Your task to perform on an android device: clear all cookies in the chrome app Image 0: 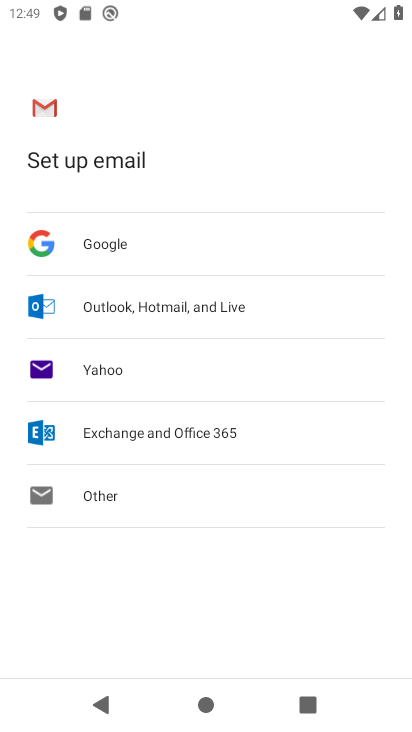
Step 0: press back button
Your task to perform on an android device: clear all cookies in the chrome app Image 1: 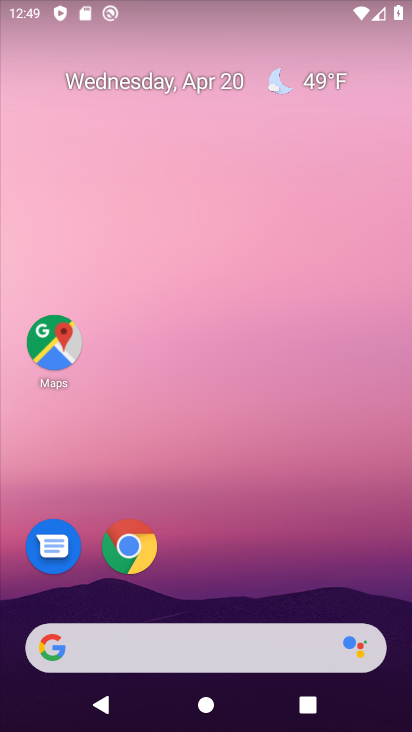
Step 1: click (141, 551)
Your task to perform on an android device: clear all cookies in the chrome app Image 2: 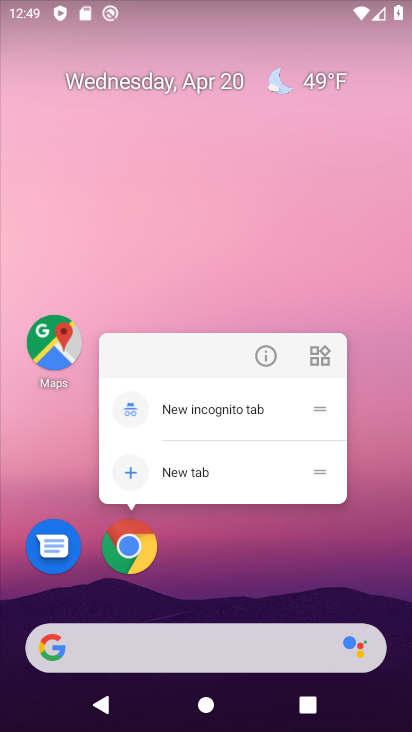
Step 2: click (127, 546)
Your task to perform on an android device: clear all cookies in the chrome app Image 3: 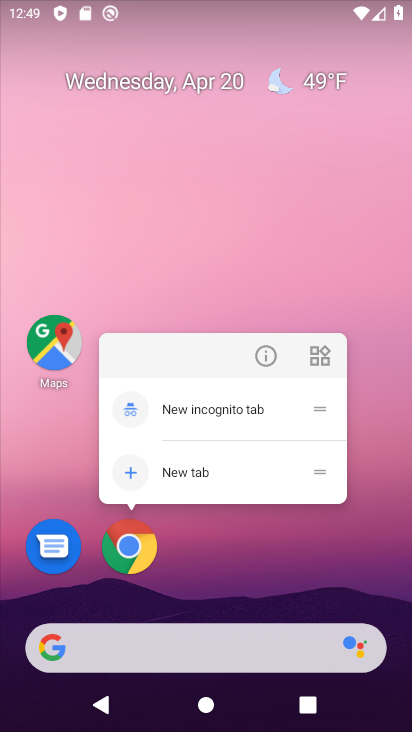
Step 3: click (118, 550)
Your task to perform on an android device: clear all cookies in the chrome app Image 4: 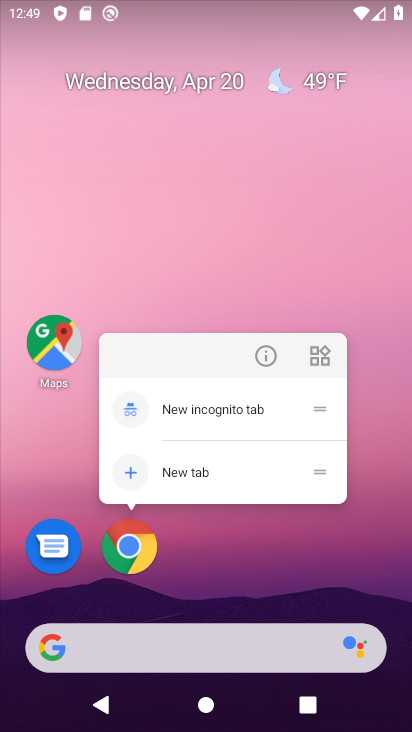
Step 4: click (126, 547)
Your task to perform on an android device: clear all cookies in the chrome app Image 5: 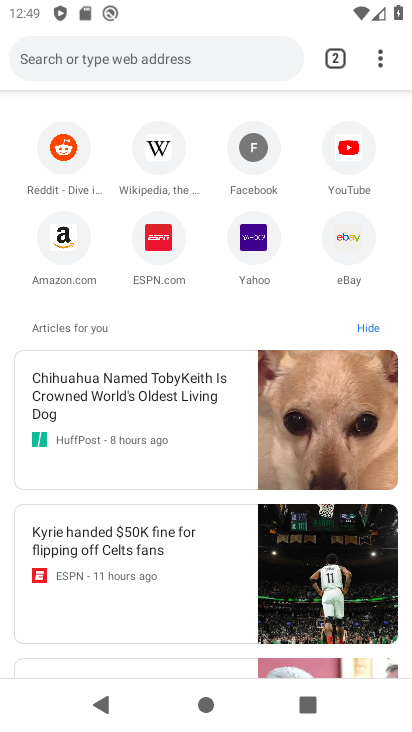
Step 5: drag from (381, 55) to (160, 383)
Your task to perform on an android device: clear all cookies in the chrome app Image 6: 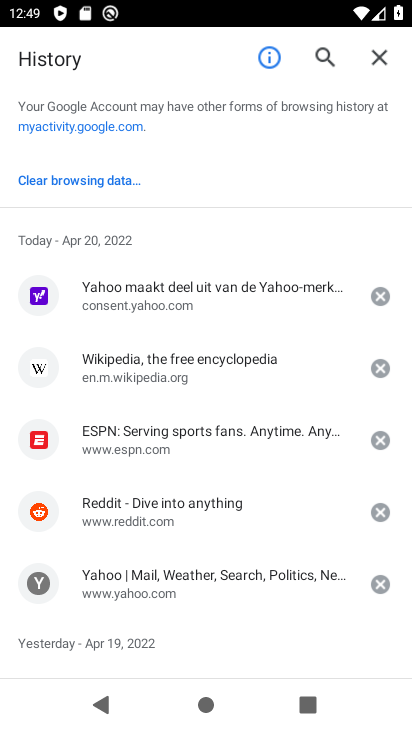
Step 6: click (116, 178)
Your task to perform on an android device: clear all cookies in the chrome app Image 7: 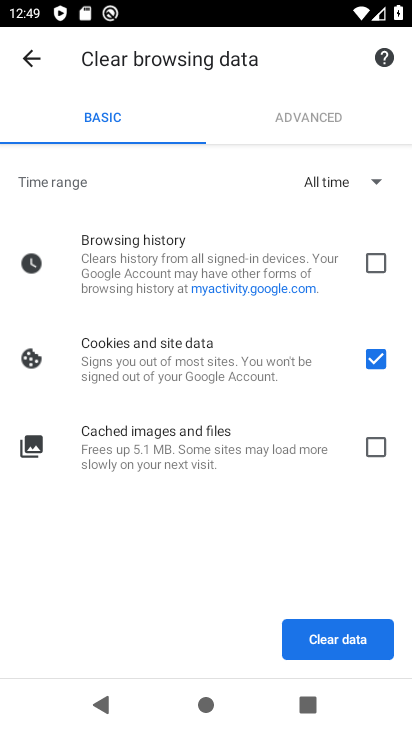
Step 7: click (338, 638)
Your task to perform on an android device: clear all cookies in the chrome app Image 8: 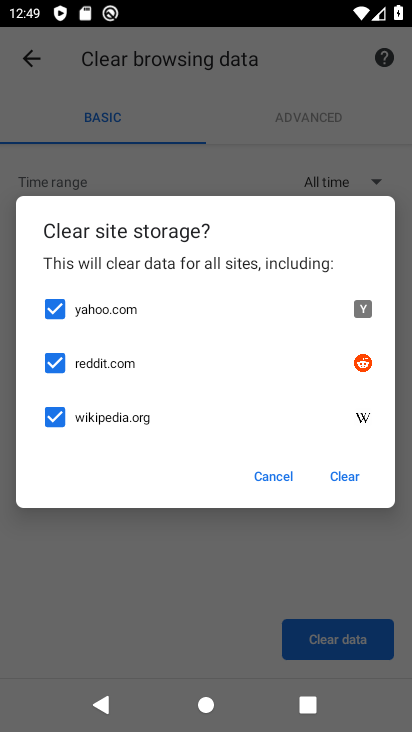
Step 8: click (347, 481)
Your task to perform on an android device: clear all cookies in the chrome app Image 9: 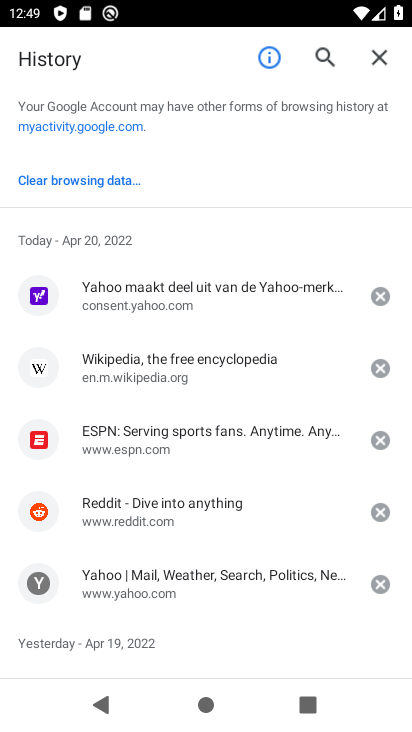
Step 9: task complete